Your task to perform on an android device: Open CNN.com Image 0: 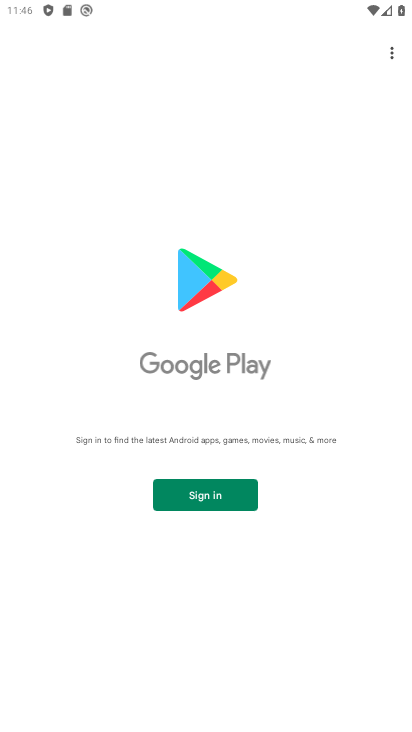
Step 0: press home button
Your task to perform on an android device: Open CNN.com Image 1: 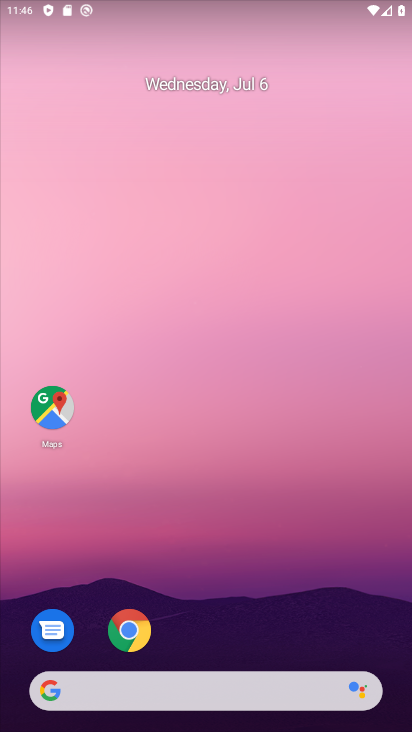
Step 1: drag from (203, 649) to (225, 62)
Your task to perform on an android device: Open CNN.com Image 2: 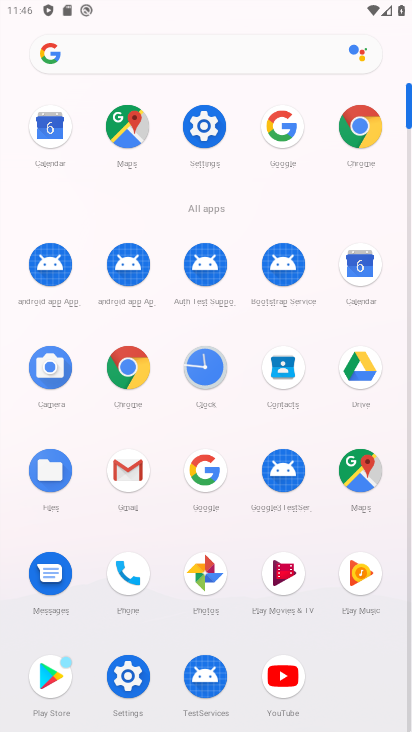
Step 2: click (361, 137)
Your task to perform on an android device: Open CNN.com Image 3: 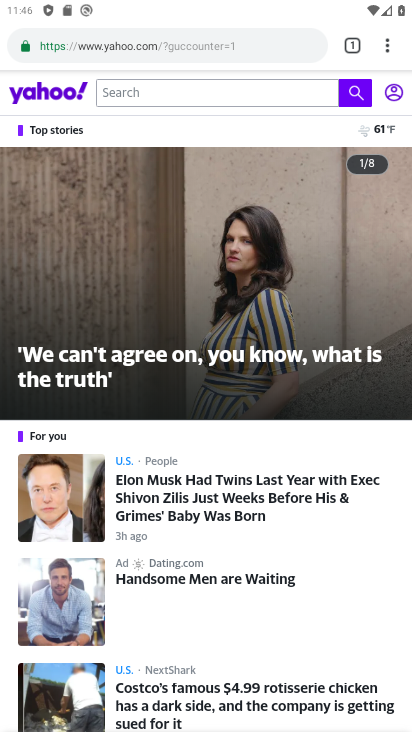
Step 3: click (213, 41)
Your task to perform on an android device: Open CNN.com Image 4: 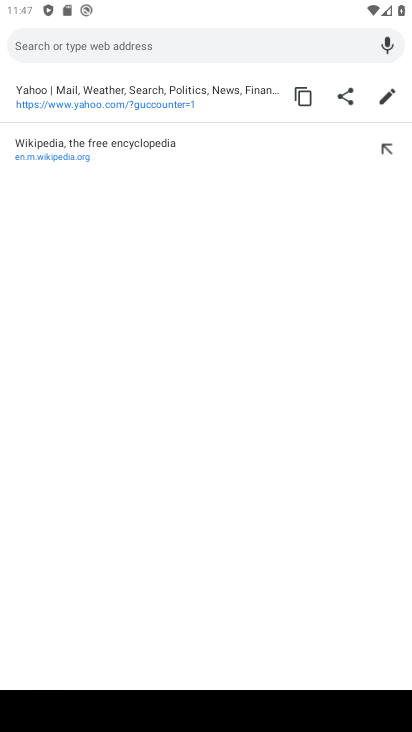
Step 4: type "www.cnn.com"
Your task to perform on an android device: Open CNN.com Image 5: 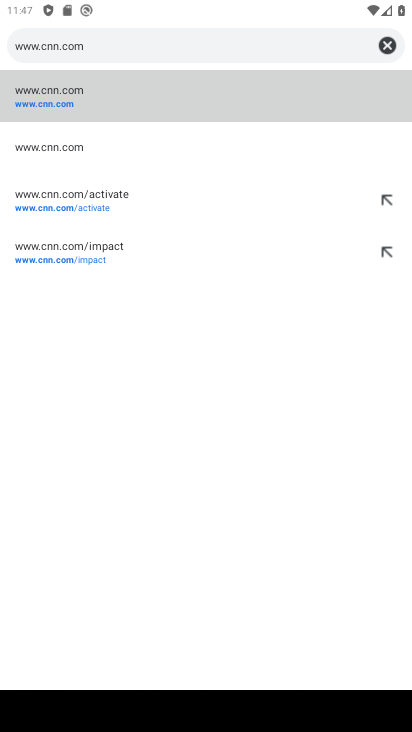
Step 5: click (33, 98)
Your task to perform on an android device: Open CNN.com Image 6: 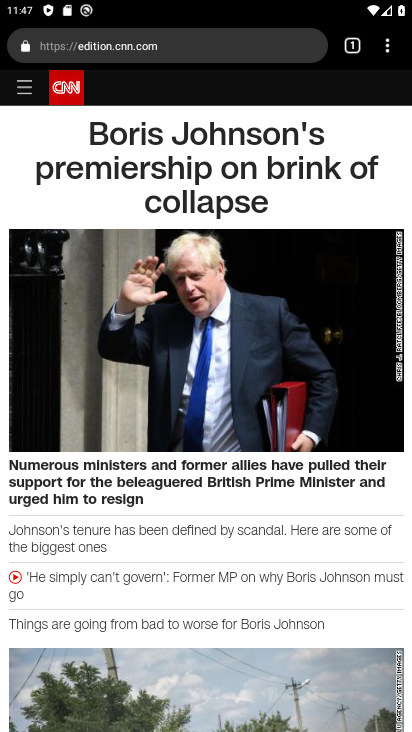
Step 6: task complete